Your task to perform on an android device: turn on translation in the chrome app Image 0: 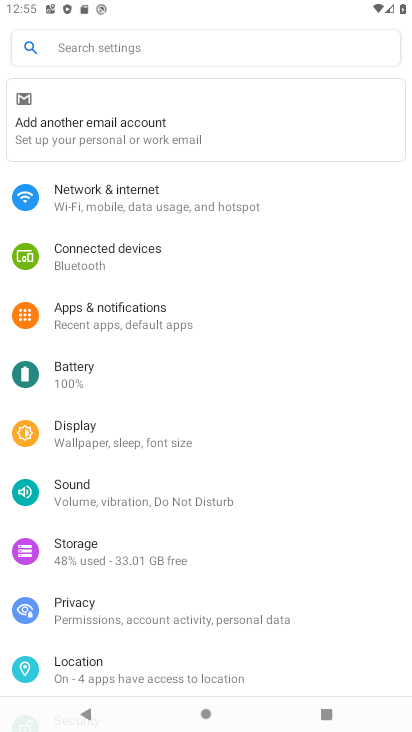
Step 0: press home button
Your task to perform on an android device: turn on translation in the chrome app Image 1: 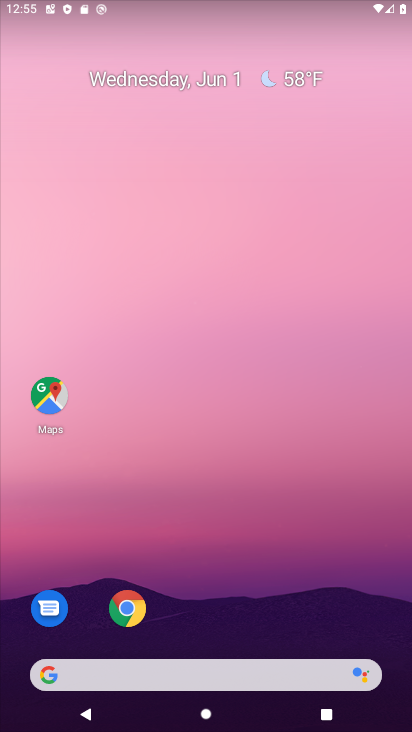
Step 1: click (126, 606)
Your task to perform on an android device: turn on translation in the chrome app Image 2: 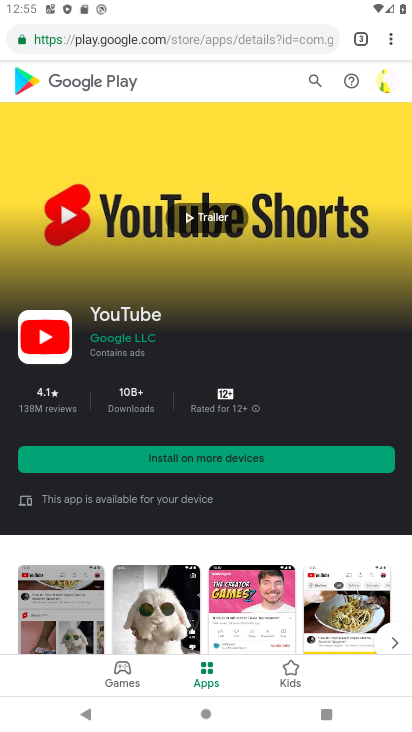
Step 2: click (399, 6)
Your task to perform on an android device: turn on translation in the chrome app Image 3: 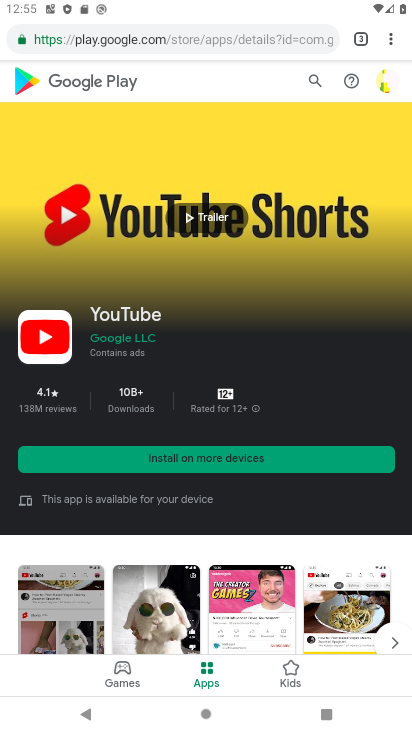
Step 3: click (387, 43)
Your task to perform on an android device: turn on translation in the chrome app Image 4: 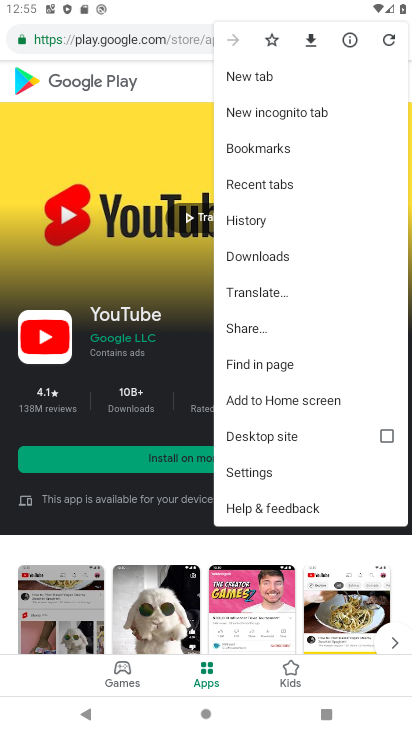
Step 4: click (253, 294)
Your task to perform on an android device: turn on translation in the chrome app Image 5: 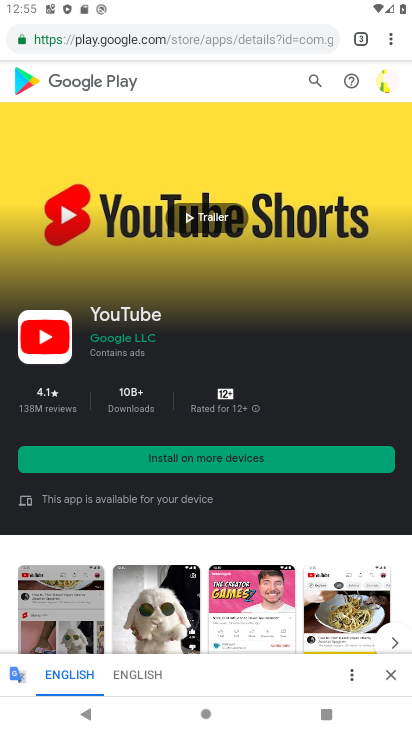
Step 5: click (392, 33)
Your task to perform on an android device: turn on translation in the chrome app Image 6: 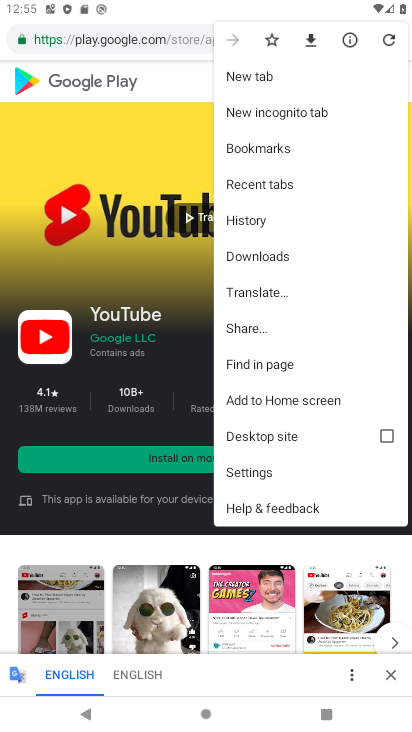
Step 6: click (288, 286)
Your task to perform on an android device: turn on translation in the chrome app Image 7: 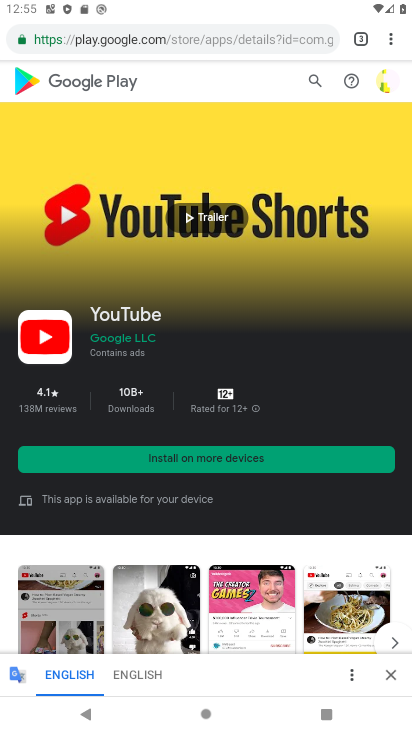
Step 7: click (346, 665)
Your task to perform on an android device: turn on translation in the chrome app Image 8: 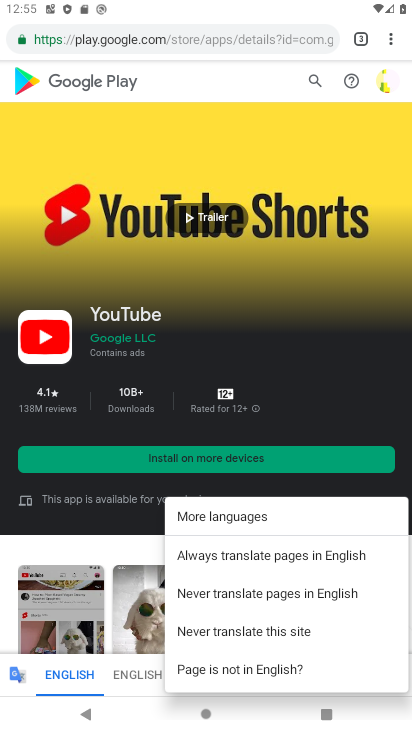
Step 8: click (287, 554)
Your task to perform on an android device: turn on translation in the chrome app Image 9: 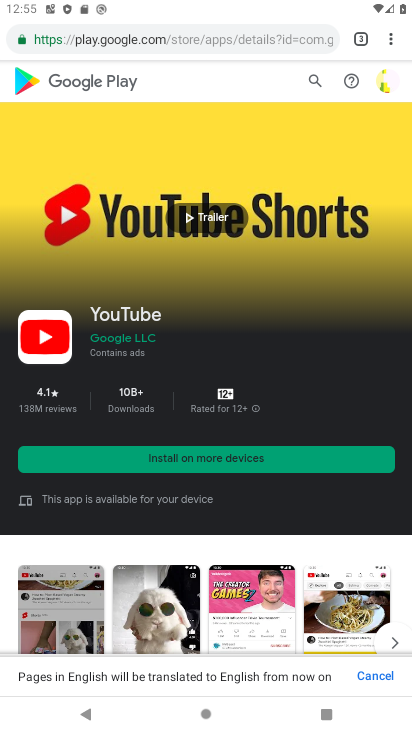
Step 9: task complete